Your task to perform on an android device: Search for Mexican restaurants on Maps Image 0: 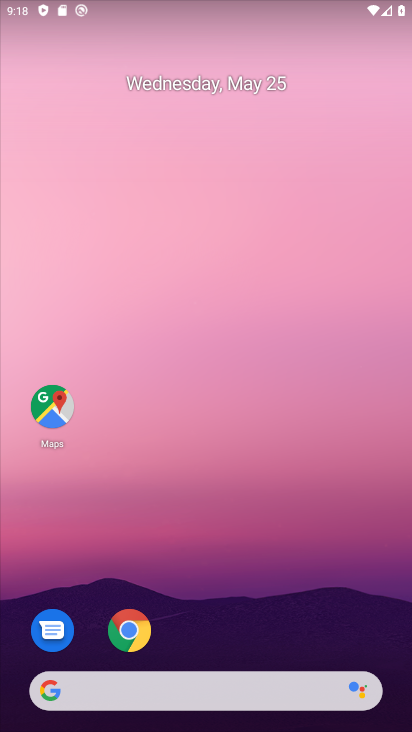
Step 0: click (42, 411)
Your task to perform on an android device: Search for Mexican restaurants on Maps Image 1: 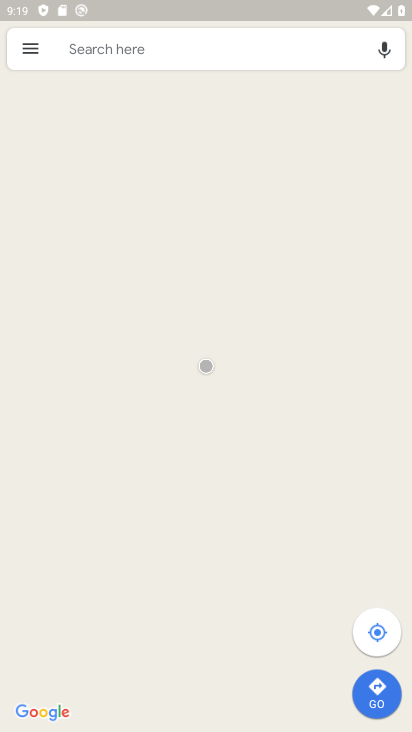
Step 1: click (114, 59)
Your task to perform on an android device: Search for Mexican restaurants on Maps Image 2: 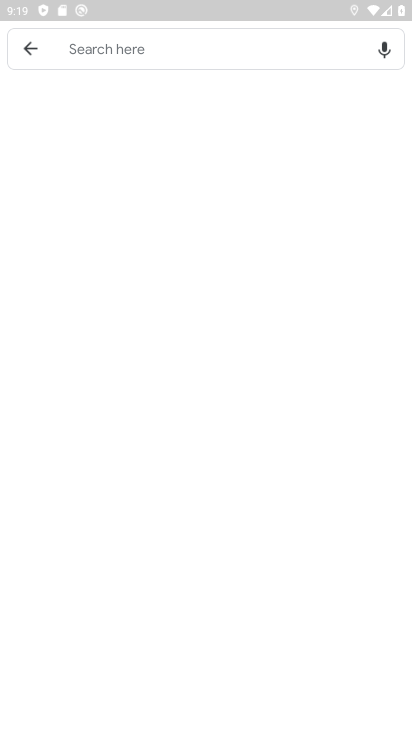
Step 2: click (133, 53)
Your task to perform on an android device: Search for Mexican restaurants on Maps Image 3: 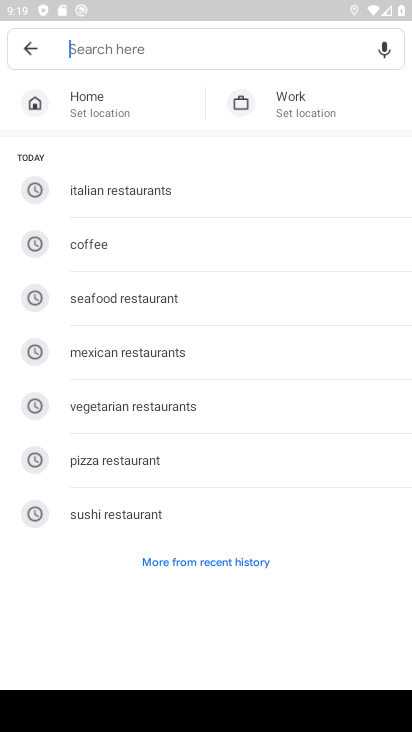
Step 3: click (125, 339)
Your task to perform on an android device: Search for Mexican restaurants on Maps Image 4: 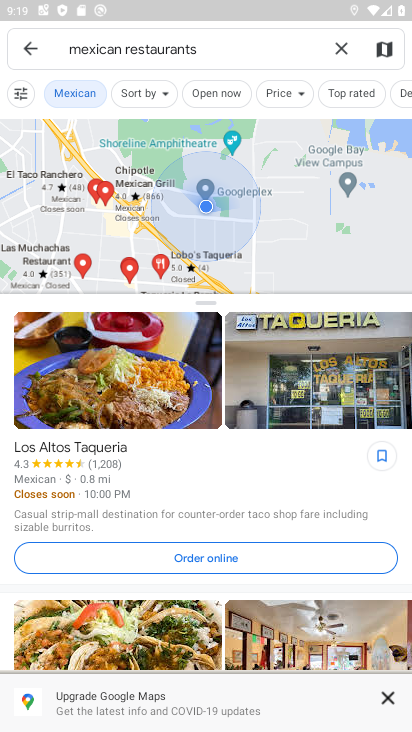
Step 4: task complete